Your task to perform on an android device: turn off picture-in-picture Image 0: 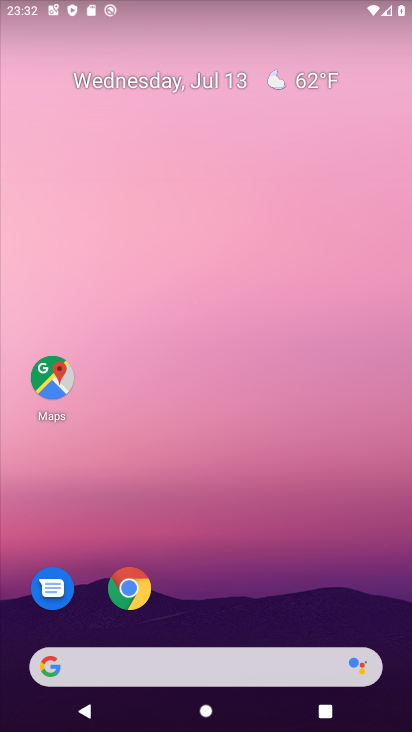
Step 0: click (215, 221)
Your task to perform on an android device: turn off picture-in-picture Image 1: 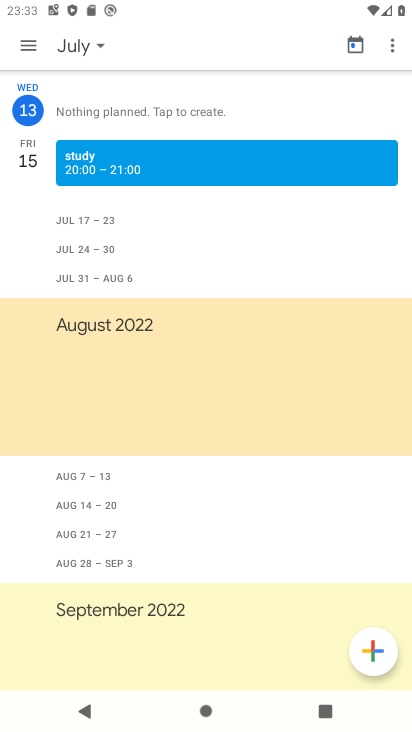
Step 1: press home button
Your task to perform on an android device: turn off picture-in-picture Image 2: 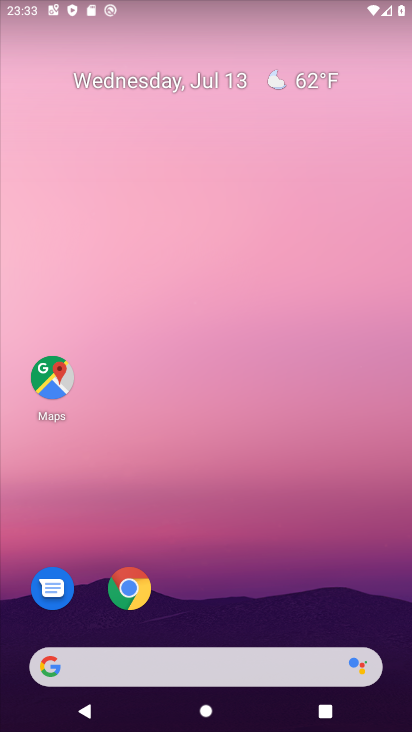
Step 2: click (137, 594)
Your task to perform on an android device: turn off picture-in-picture Image 3: 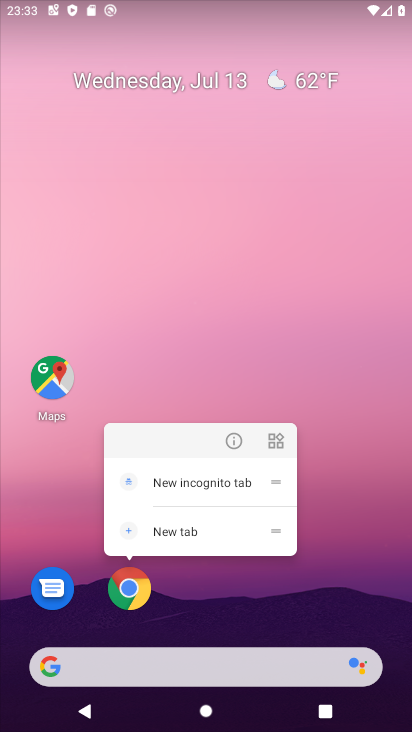
Step 3: click (235, 440)
Your task to perform on an android device: turn off picture-in-picture Image 4: 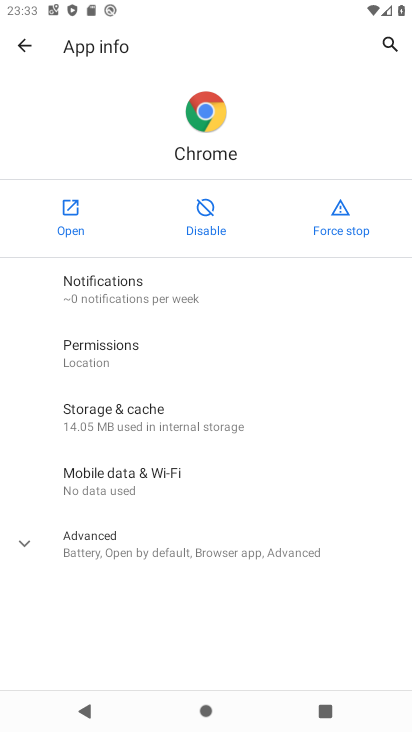
Step 4: click (97, 546)
Your task to perform on an android device: turn off picture-in-picture Image 5: 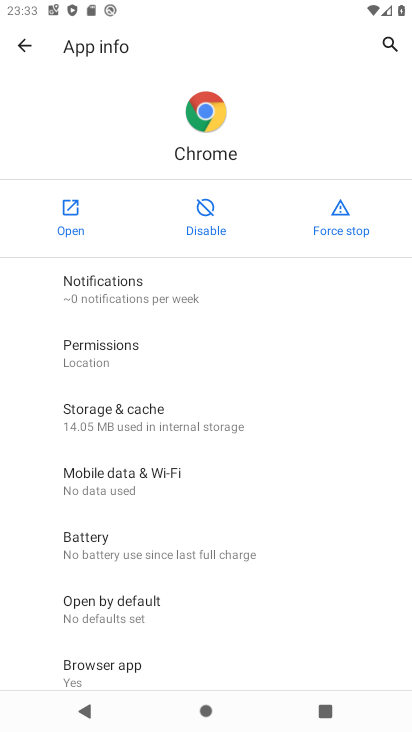
Step 5: drag from (212, 629) to (179, 209)
Your task to perform on an android device: turn off picture-in-picture Image 6: 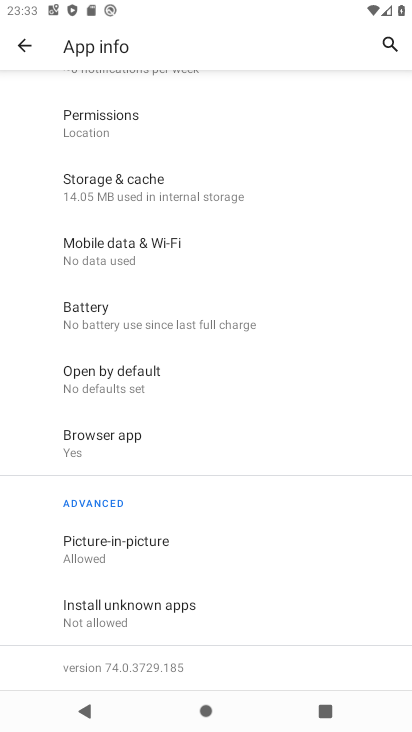
Step 6: click (133, 545)
Your task to perform on an android device: turn off picture-in-picture Image 7: 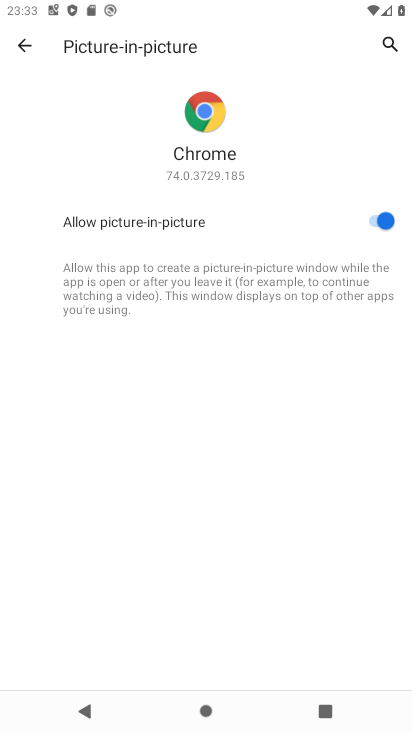
Step 7: click (376, 218)
Your task to perform on an android device: turn off picture-in-picture Image 8: 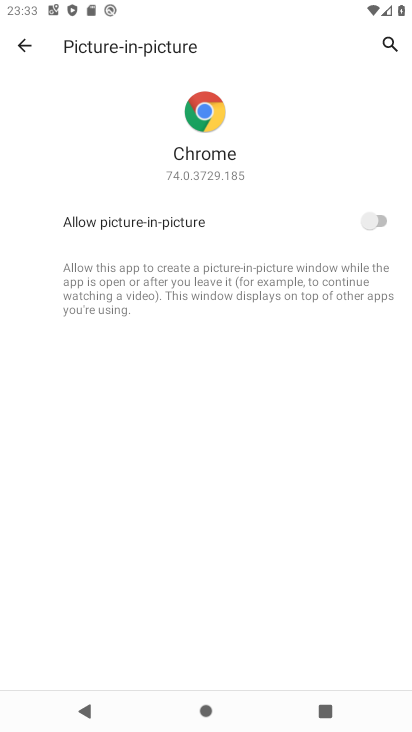
Step 8: task complete